Your task to perform on an android device: check storage Image 0: 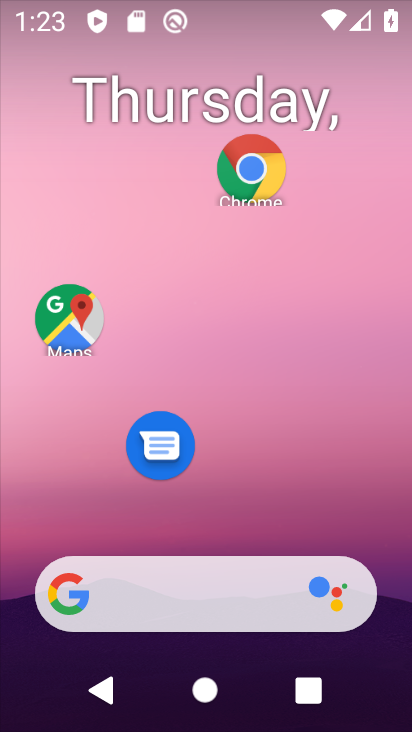
Step 0: drag from (273, 634) to (307, 122)
Your task to perform on an android device: check storage Image 1: 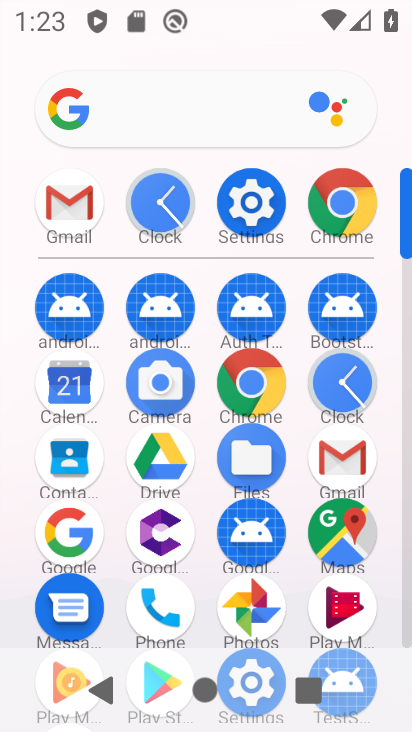
Step 1: drag from (276, 119) to (254, 204)
Your task to perform on an android device: check storage Image 2: 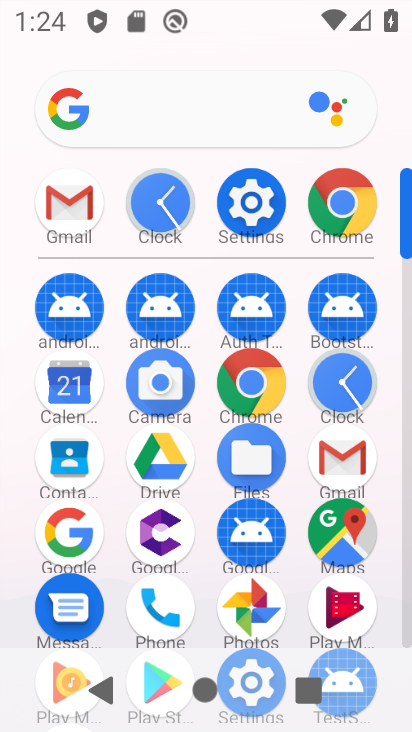
Step 2: click (257, 208)
Your task to perform on an android device: check storage Image 3: 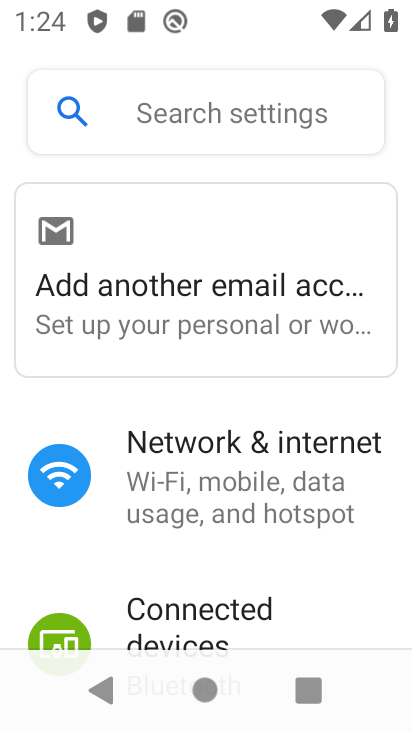
Step 3: click (209, 128)
Your task to perform on an android device: check storage Image 4: 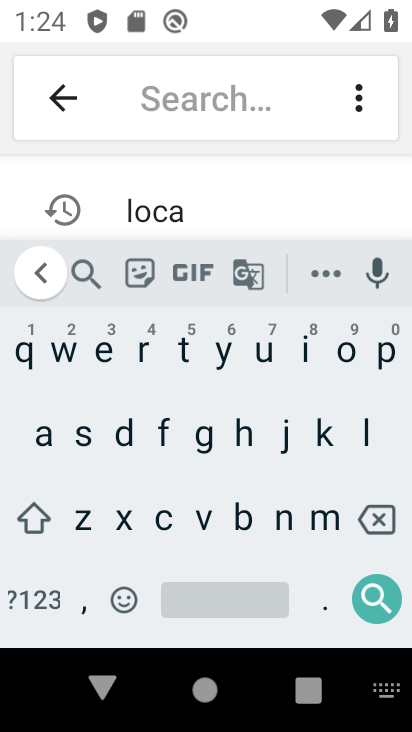
Step 4: click (84, 434)
Your task to perform on an android device: check storage Image 5: 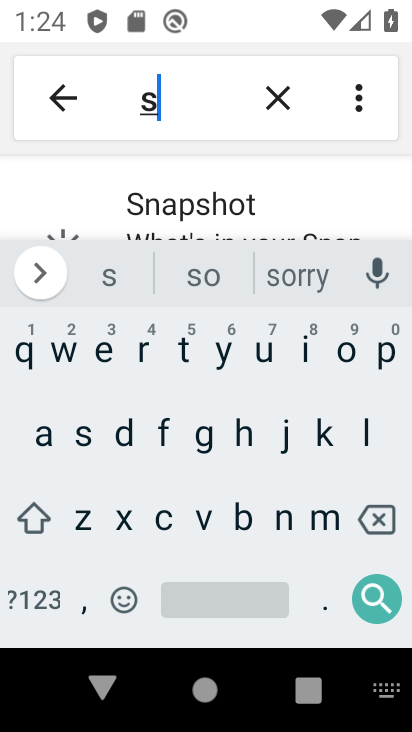
Step 5: click (179, 353)
Your task to perform on an android device: check storage Image 6: 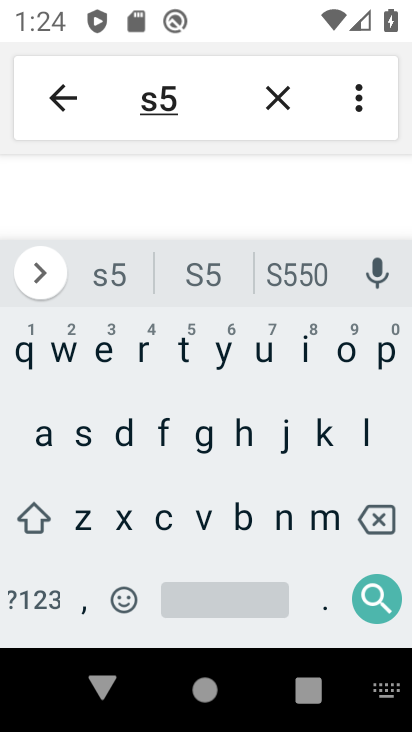
Step 6: click (389, 520)
Your task to perform on an android device: check storage Image 7: 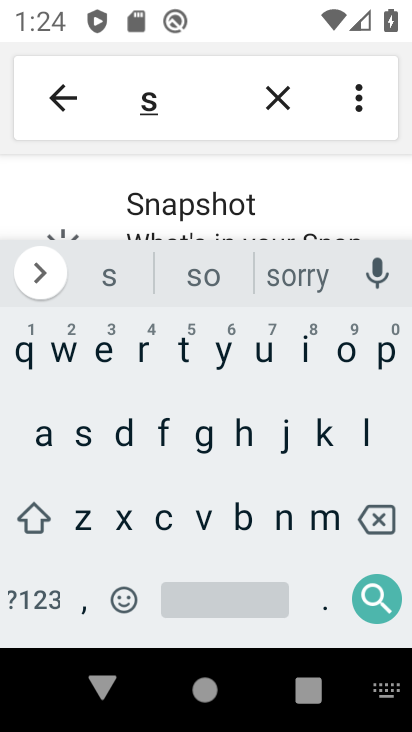
Step 7: click (189, 358)
Your task to perform on an android device: check storage Image 8: 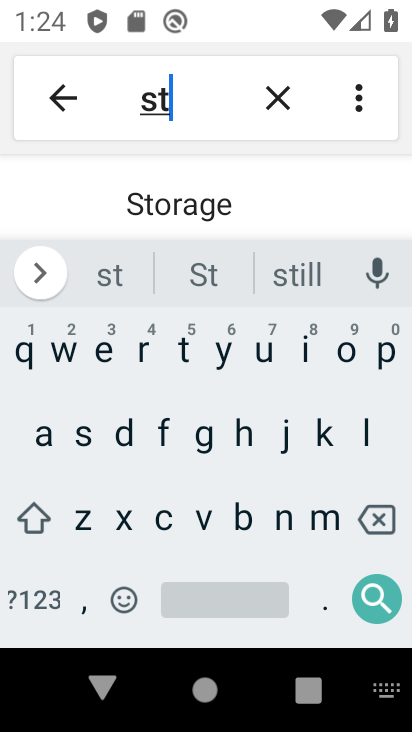
Step 8: click (349, 359)
Your task to perform on an android device: check storage Image 9: 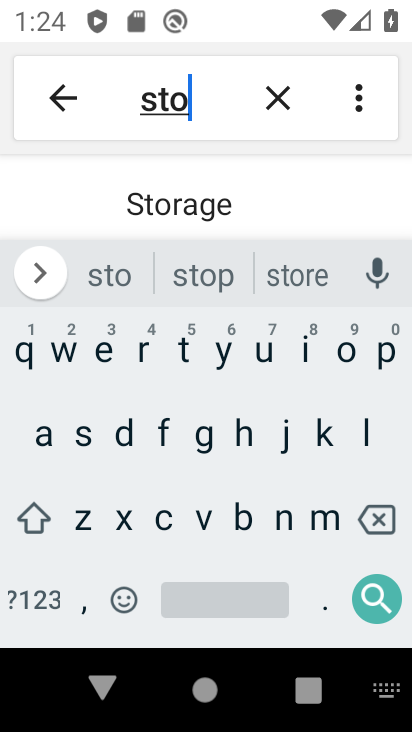
Step 9: press back button
Your task to perform on an android device: check storage Image 10: 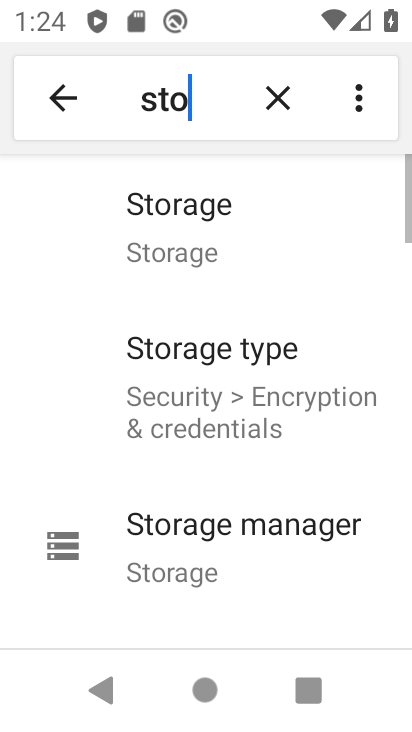
Step 10: click (201, 250)
Your task to perform on an android device: check storage Image 11: 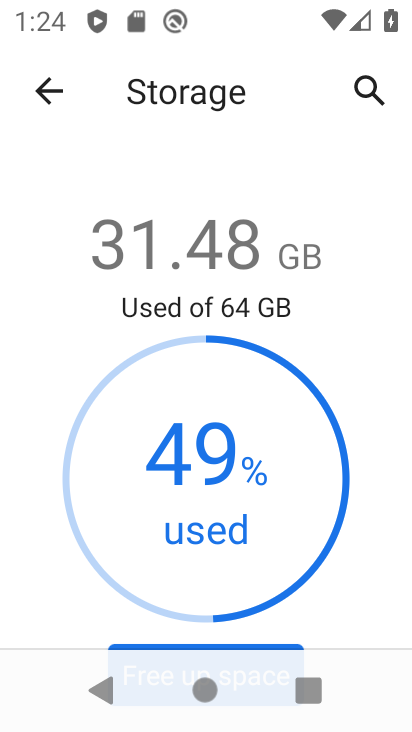
Step 11: task complete